Your task to perform on an android device: read, delete, or share a saved page in the chrome app Image 0: 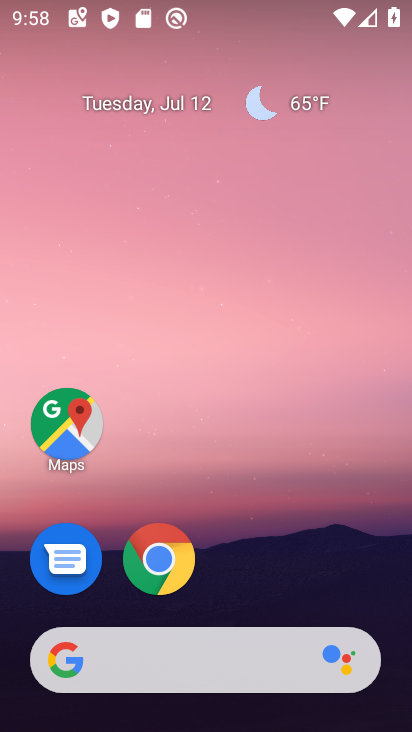
Step 0: drag from (342, 594) to (313, 158)
Your task to perform on an android device: read, delete, or share a saved page in the chrome app Image 1: 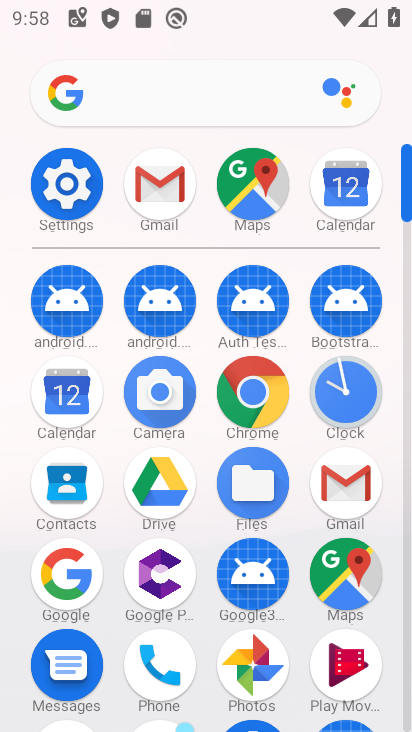
Step 1: click (261, 404)
Your task to perform on an android device: read, delete, or share a saved page in the chrome app Image 2: 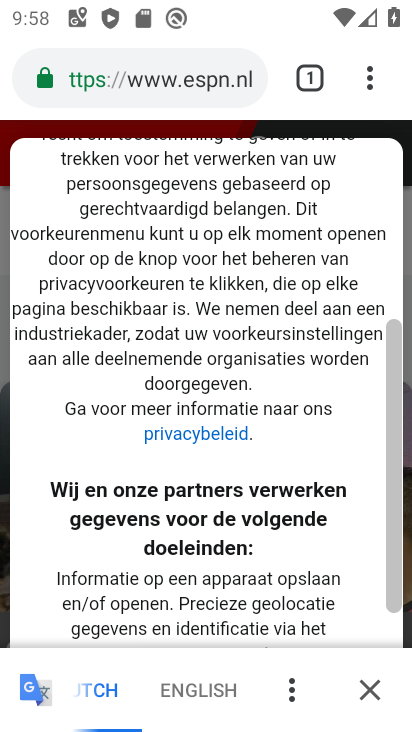
Step 2: click (371, 76)
Your task to perform on an android device: read, delete, or share a saved page in the chrome app Image 3: 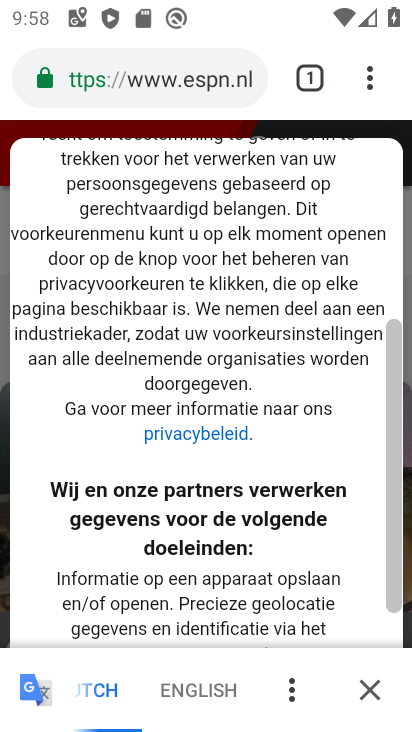
Step 3: click (368, 81)
Your task to perform on an android device: read, delete, or share a saved page in the chrome app Image 4: 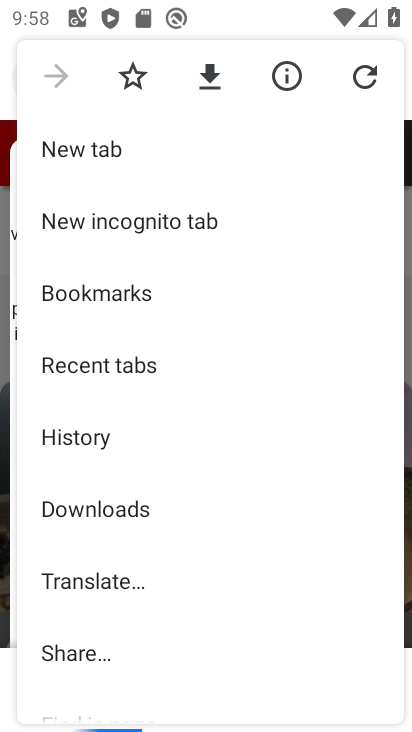
Step 4: drag from (328, 426) to (327, 353)
Your task to perform on an android device: read, delete, or share a saved page in the chrome app Image 5: 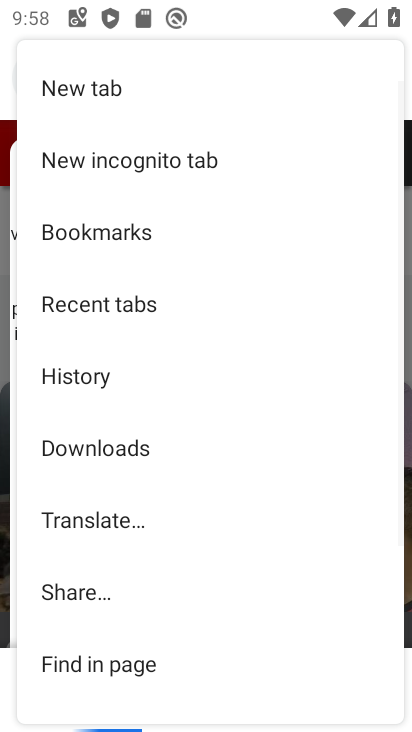
Step 5: drag from (329, 438) to (316, 332)
Your task to perform on an android device: read, delete, or share a saved page in the chrome app Image 6: 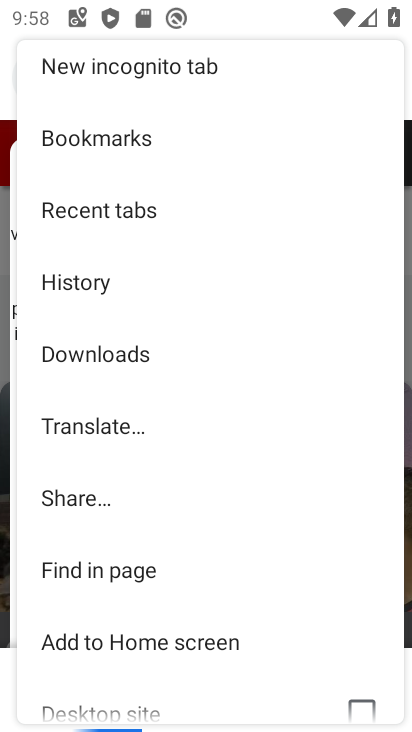
Step 6: drag from (311, 437) to (304, 361)
Your task to perform on an android device: read, delete, or share a saved page in the chrome app Image 7: 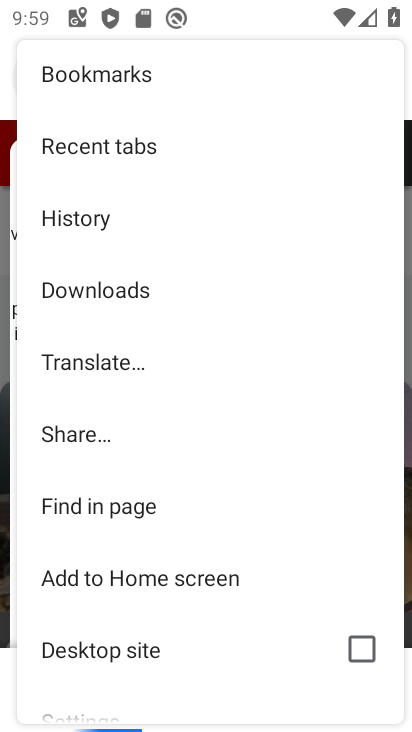
Step 7: drag from (310, 366) to (315, 326)
Your task to perform on an android device: read, delete, or share a saved page in the chrome app Image 8: 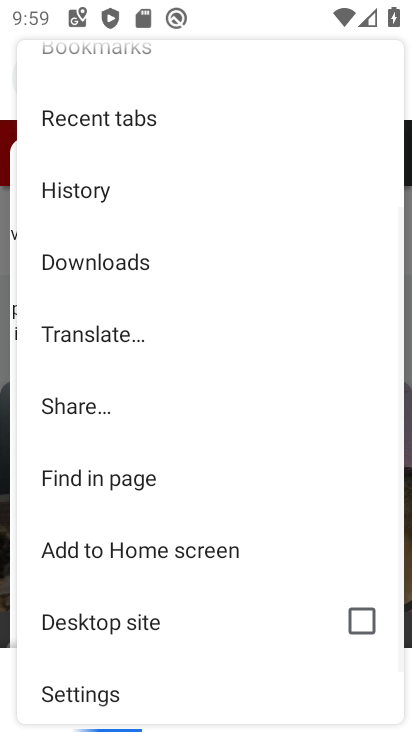
Step 8: drag from (310, 430) to (303, 305)
Your task to perform on an android device: read, delete, or share a saved page in the chrome app Image 9: 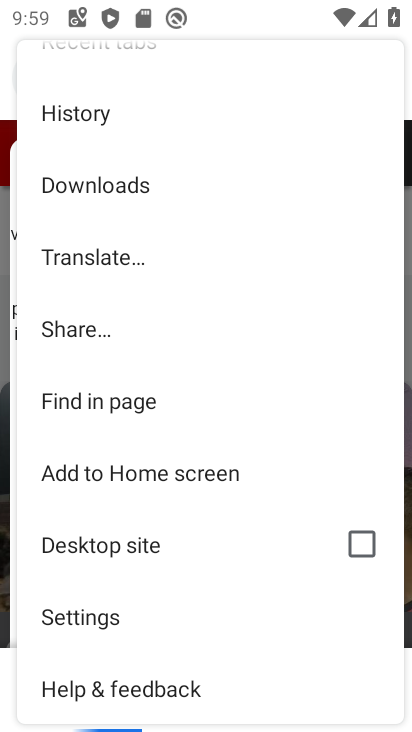
Step 9: click (120, 184)
Your task to perform on an android device: read, delete, or share a saved page in the chrome app Image 10: 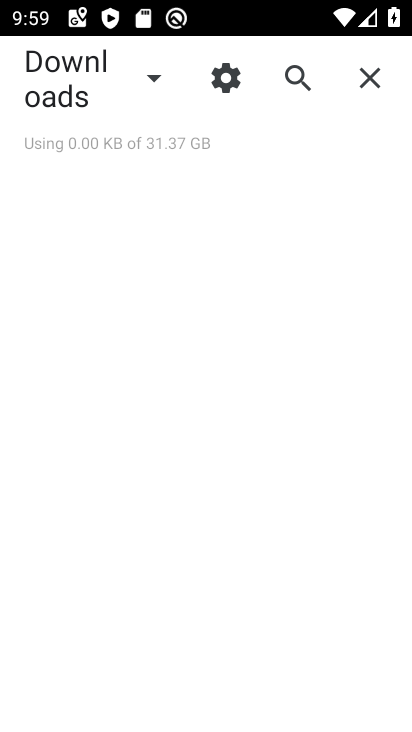
Step 10: click (149, 78)
Your task to perform on an android device: read, delete, or share a saved page in the chrome app Image 11: 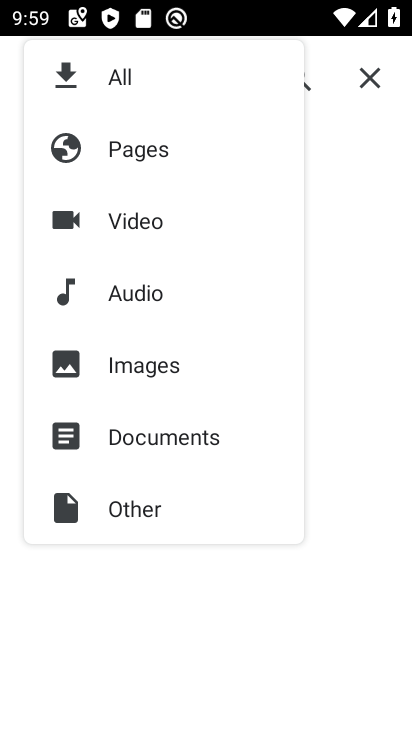
Step 11: click (147, 166)
Your task to perform on an android device: read, delete, or share a saved page in the chrome app Image 12: 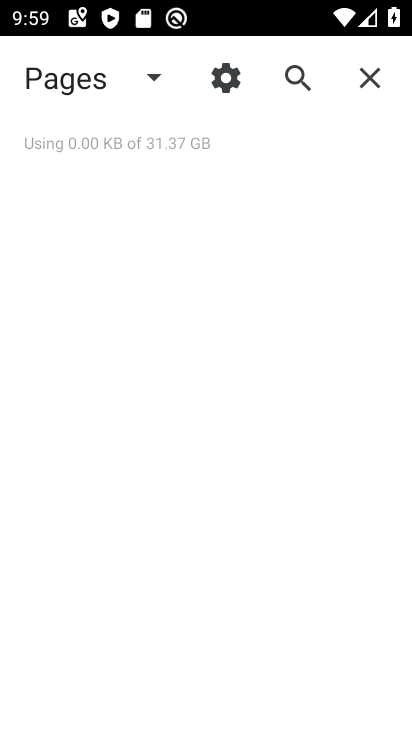
Step 12: task complete